Your task to perform on an android device: turn pop-ups off in chrome Image 0: 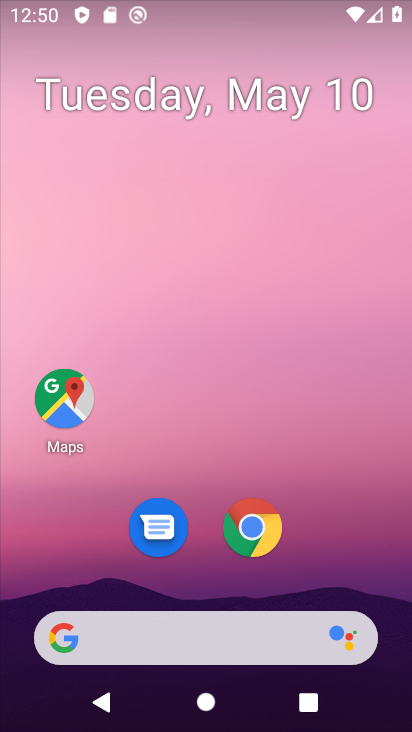
Step 0: click (251, 533)
Your task to perform on an android device: turn pop-ups off in chrome Image 1: 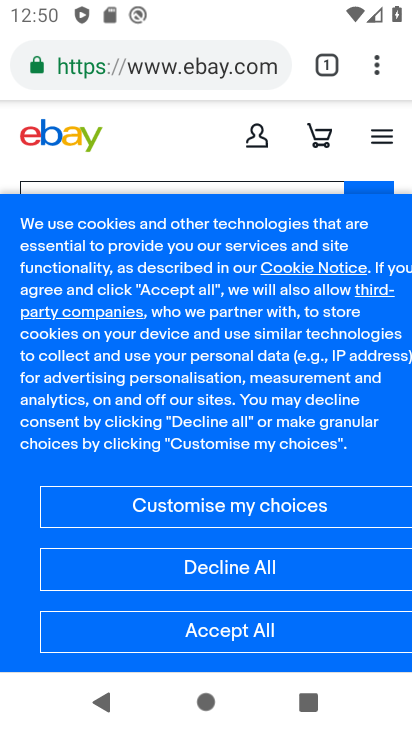
Step 1: drag from (377, 62) to (162, 577)
Your task to perform on an android device: turn pop-ups off in chrome Image 2: 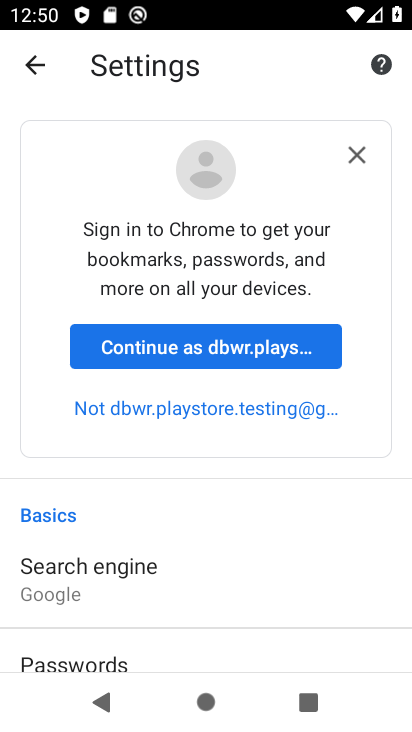
Step 2: drag from (218, 527) to (220, 166)
Your task to perform on an android device: turn pop-ups off in chrome Image 3: 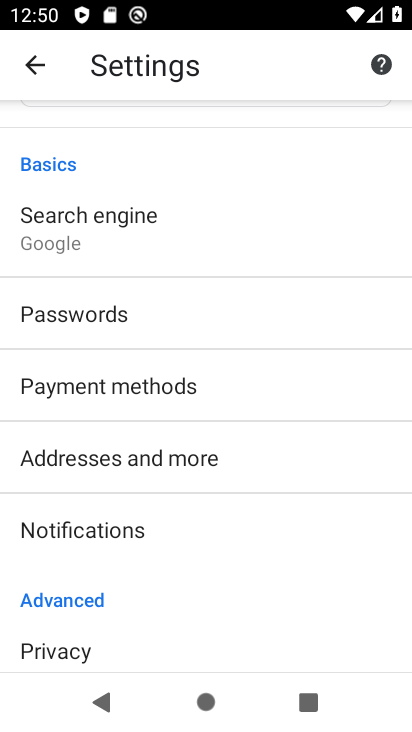
Step 3: drag from (218, 509) to (220, 240)
Your task to perform on an android device: turn pop-ups off in chrome Image 4: 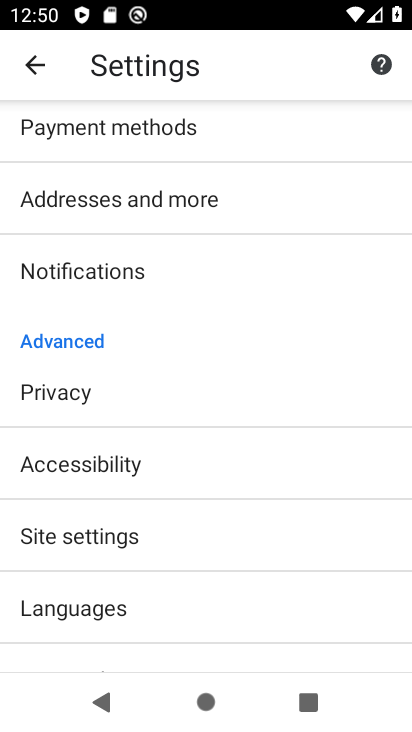
Step 4: click (139, 540)
Your task to perform on an android device: turn pop-ups off in chrome Image 5: 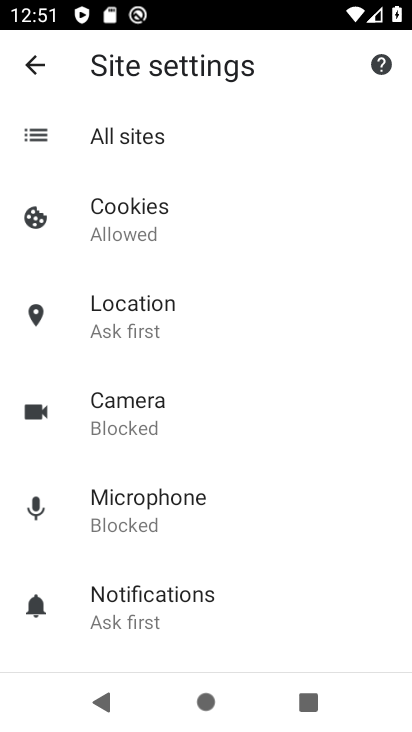
Step 5: drag from (206, 549) to (197, 223)
Your task to perform on an android device: turn pop-ups off in chrome Image 6: 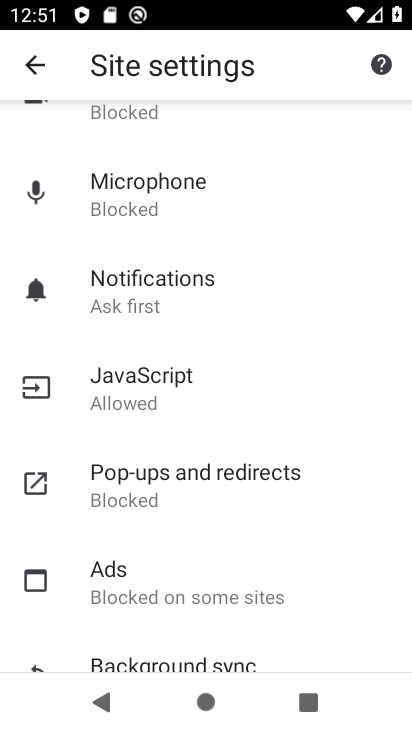
Step 6: click (135, 481)
Your task to perform on an android device: turn pop-ups off in chrome Image 7: 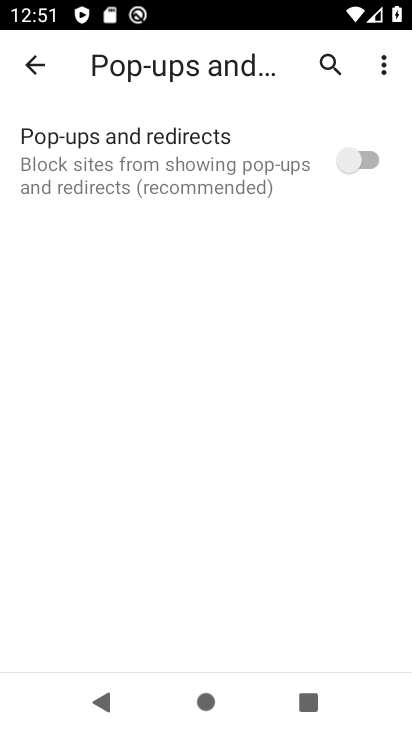
Step 7: task complete